Your task to perform on an android device: change the clock display to digital Image 0: 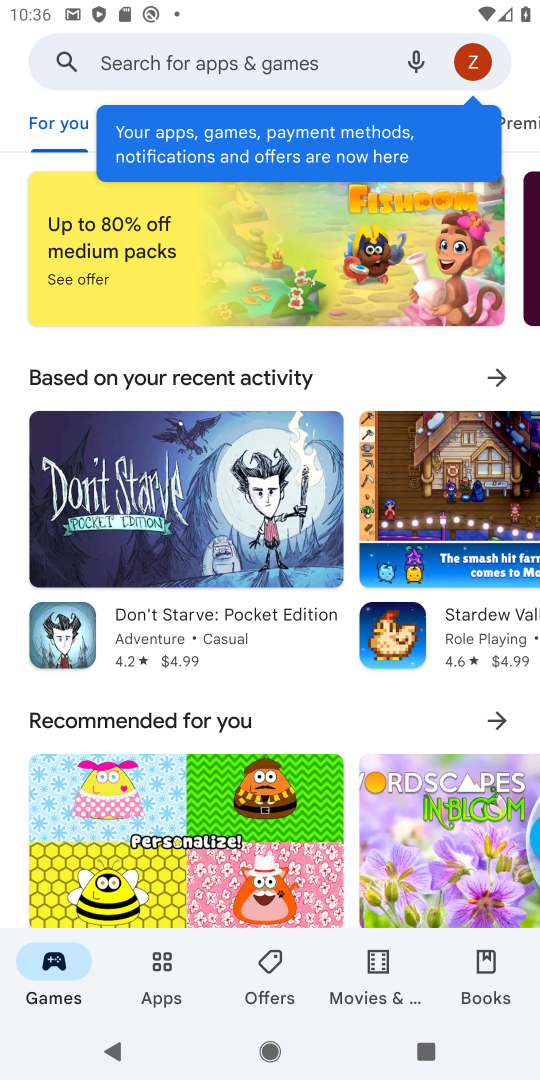
Step 0: press home button
Your task to perform on an android device: change the clock display to digital Image 1: 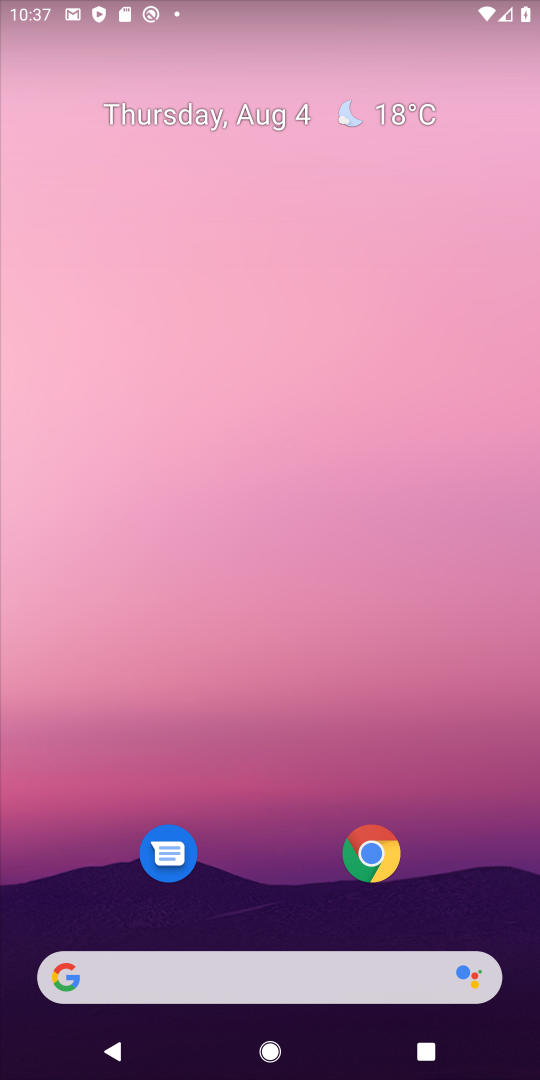
Step 1: drag from (298, 926) to (495, 601)
Your task to perform on an android device: change the clock display to digital Image 2: 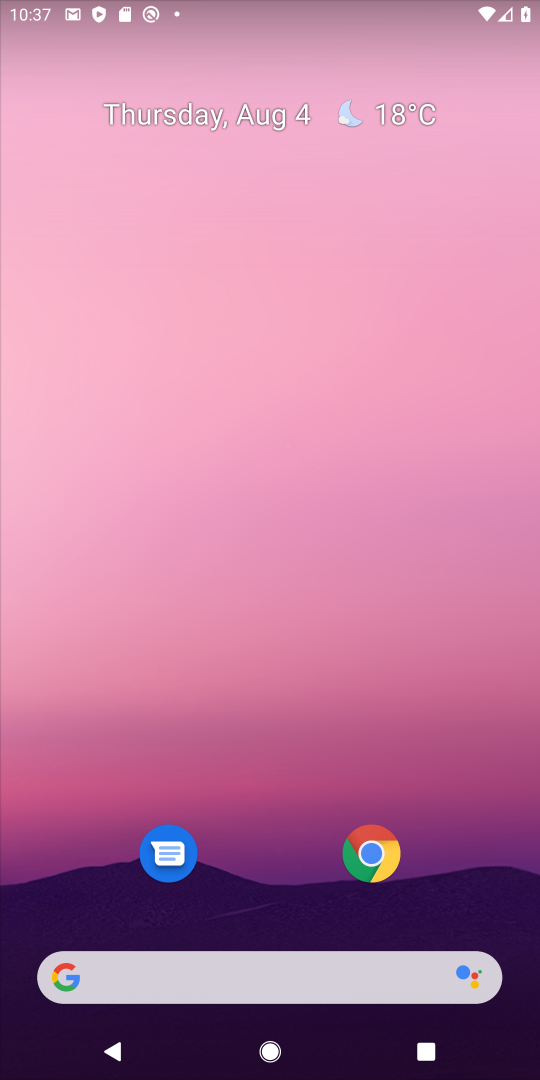
Step 2: drag from (271, 890) to (247, 55)
Your task to perform on an android device: change the clock display to digital Image 3: 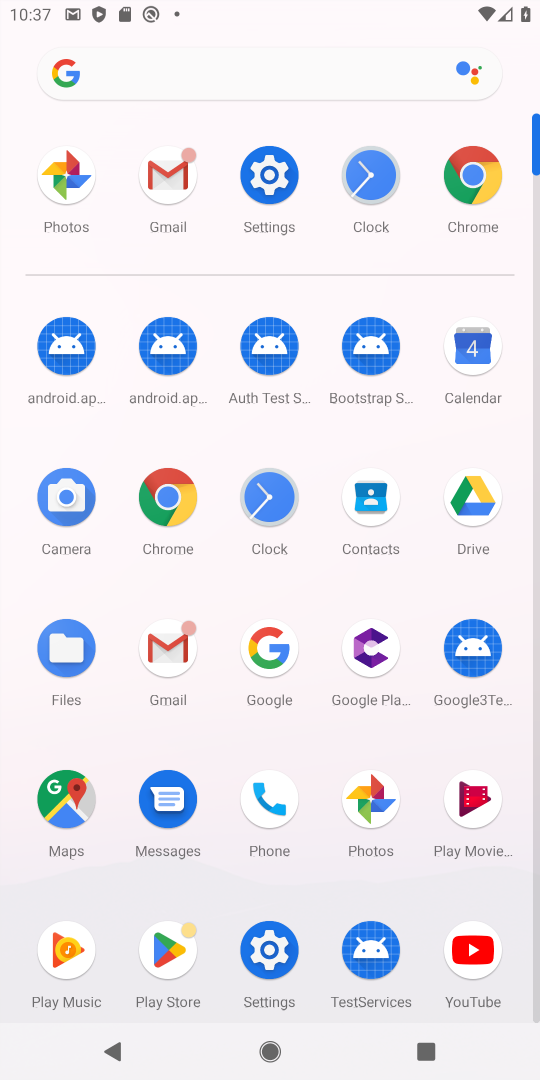
Step 3: click (273, 484)
Your task to perform on an android device: change the clock display to digital Image 4: 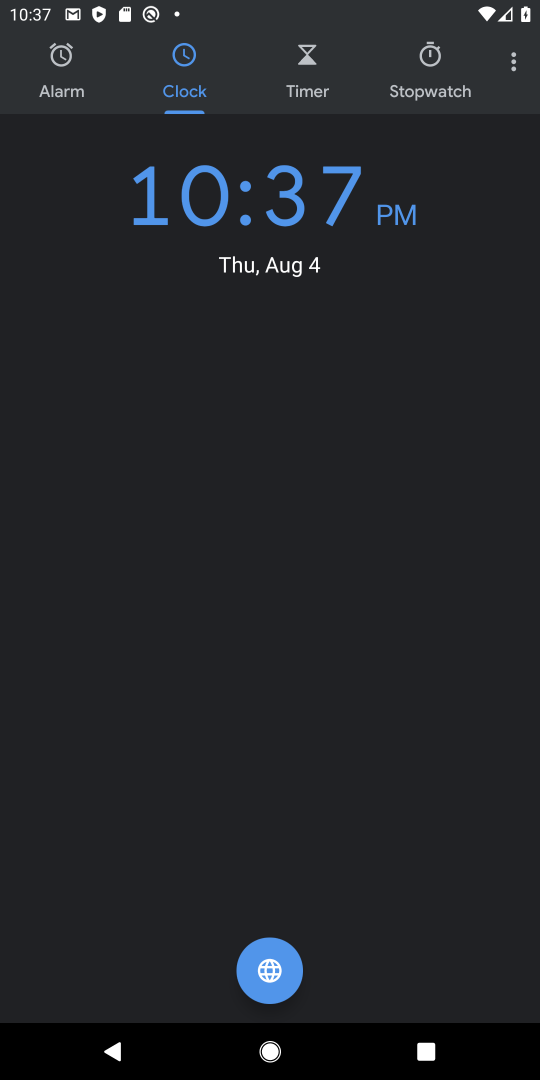
Step 4: click (512, 70)
Your task to perform on an android device: change the clock display to digital Image 5: 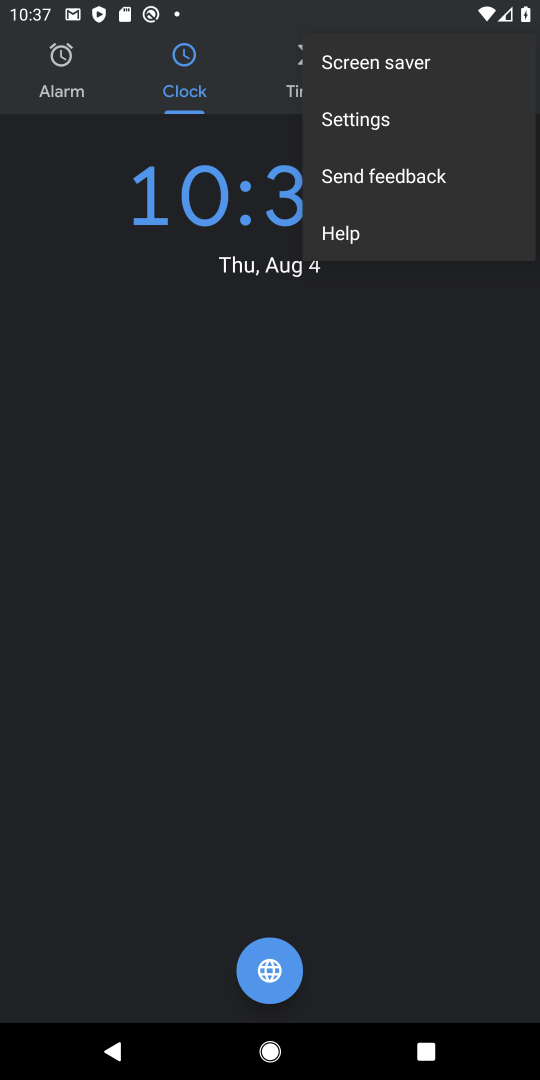
Step 5: click (368, 115)
Your task to perform on an android device: change the clock display to digital Image 6: 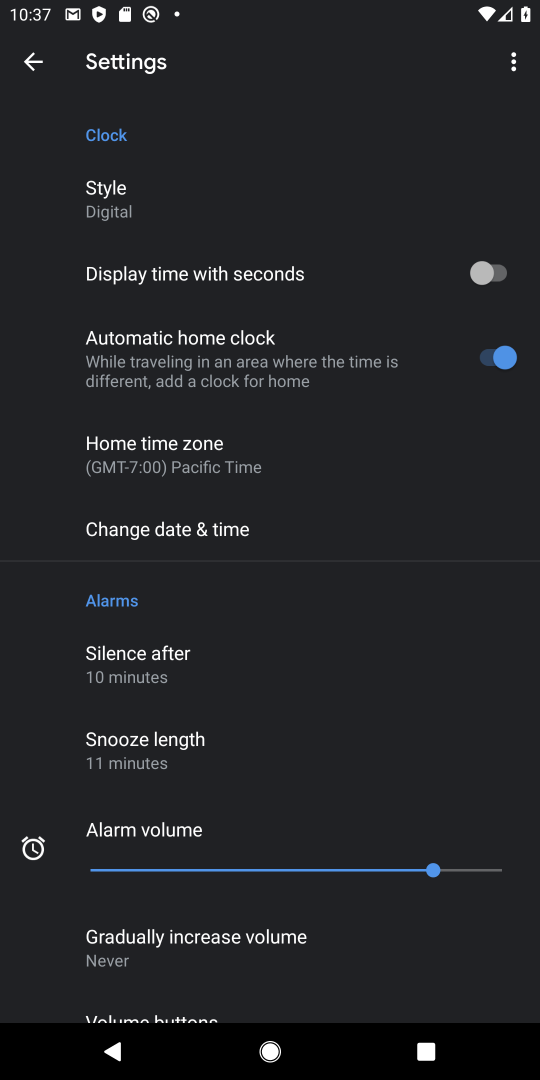
Step 6: task complete